Your task to perform on an android device: open a bookmark in the chrome app Image 0: 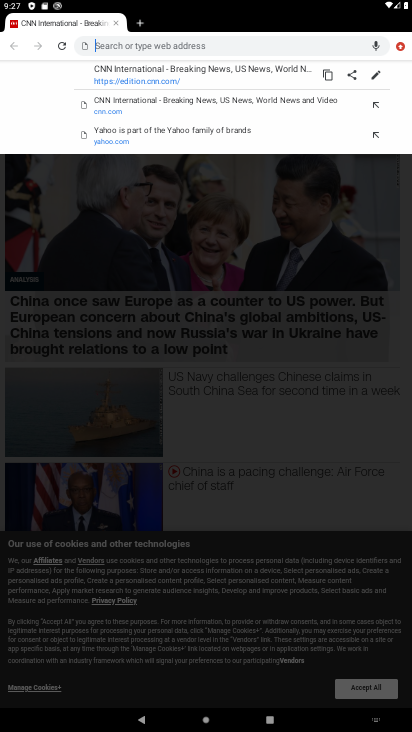
Step 0: press home button
Your task to perform on an android device: open a bookmark in the chrome app Image 1: 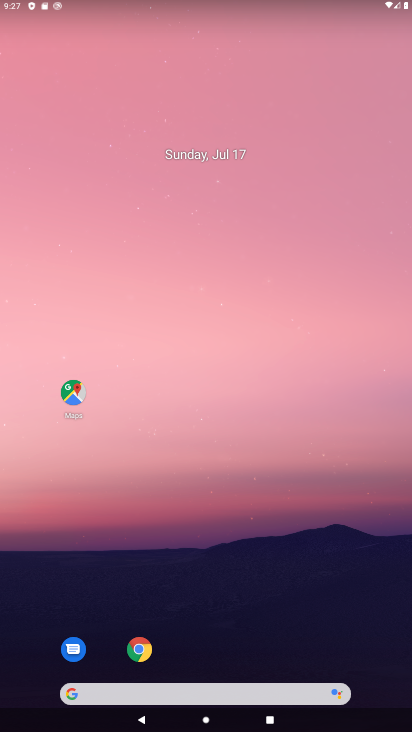
Step 1: click (129, 646)
Your task to perform on an android device: open a bookmark in the chrome app Image 2: 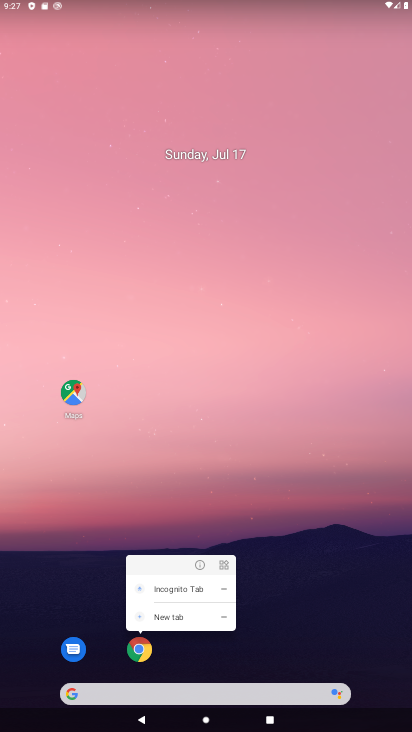
Step 2: click (143, 647)
Your task to perform on an android device: open a bookmark in the chrome app Image 3: 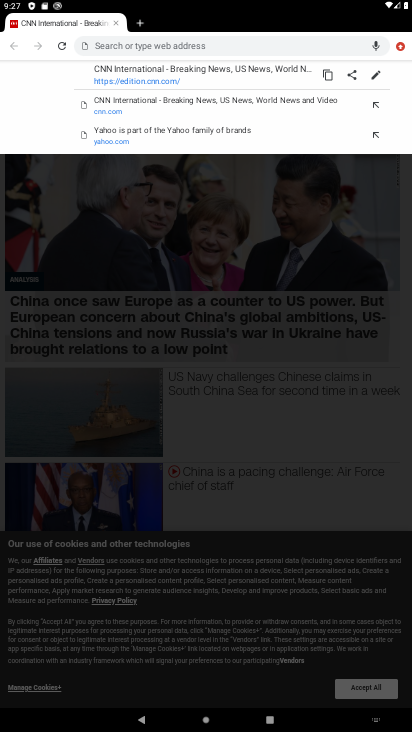
Step 3: click (136, 24)
Your task to perform on an android device: open a bookmark in the chrome app Image 4: 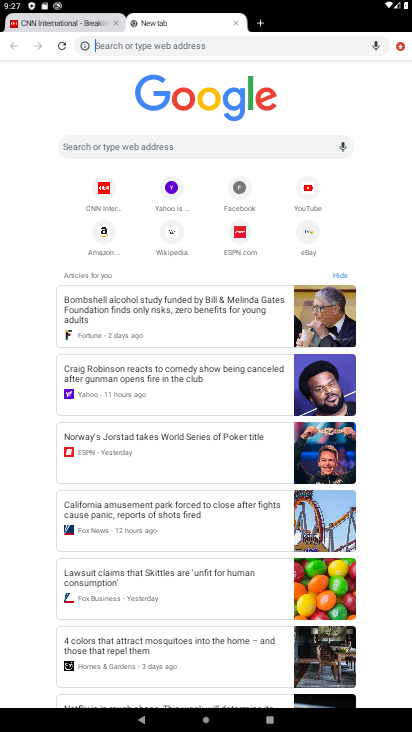
Step 4: click (398, 47)
Your task to perform on an android device: open a bookmark in the chrome app Image 5: 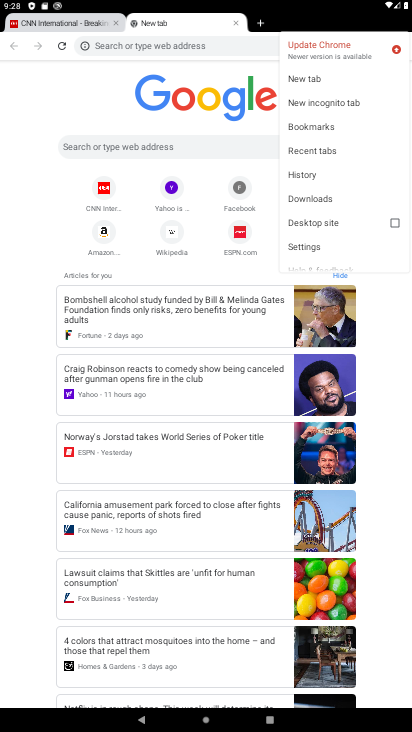
Step 5: click (323, 130)
Your task to perform on an android device: open a bookmark in the chrome app Image 6: 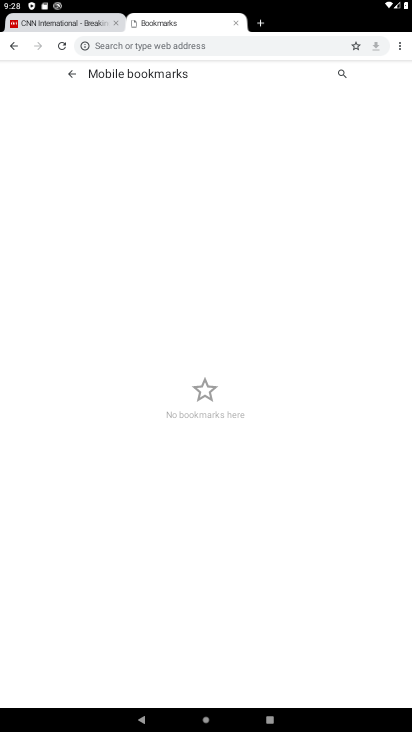
Step 6: task complete